Your task to perform on an android device: Go to Android settings Image 0: 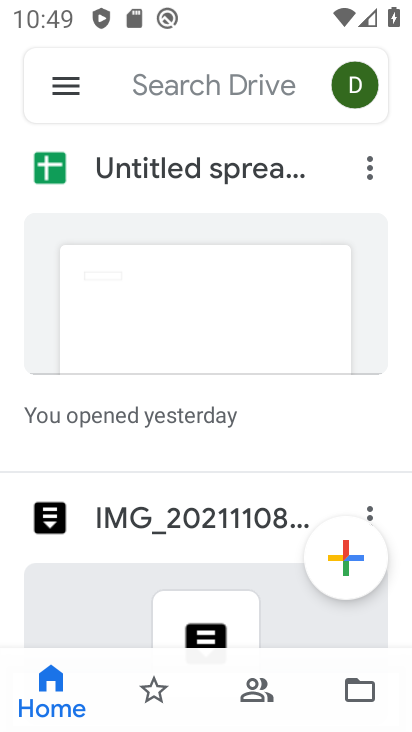
Step 0: press home button
Your task to perform on an android device: Go to Android settings Image 1: 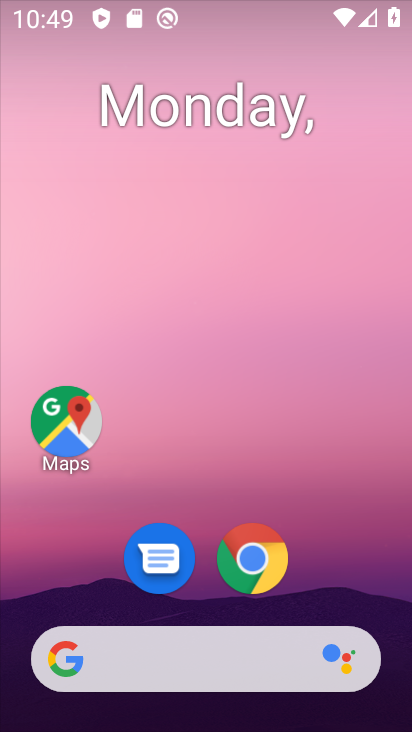
Step 1: drag from (322, 525) to (357, 36)
Your task to perform on an android device: Go to Android settings Image 2: 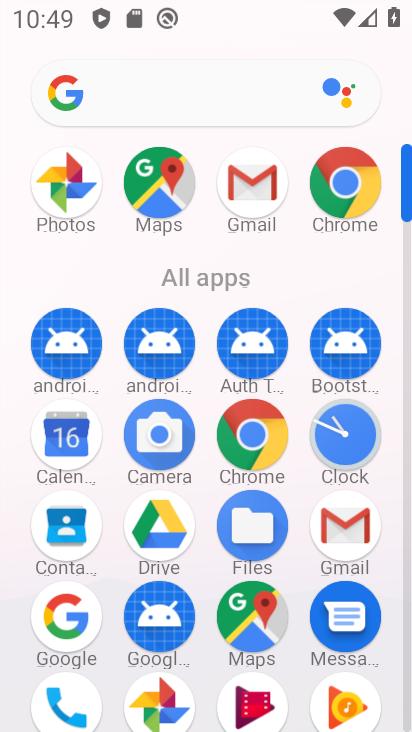
Step 2: drag from (203, 509) to (243, 75)
Your task to perform on an android device: Go to Android settings Image 3: 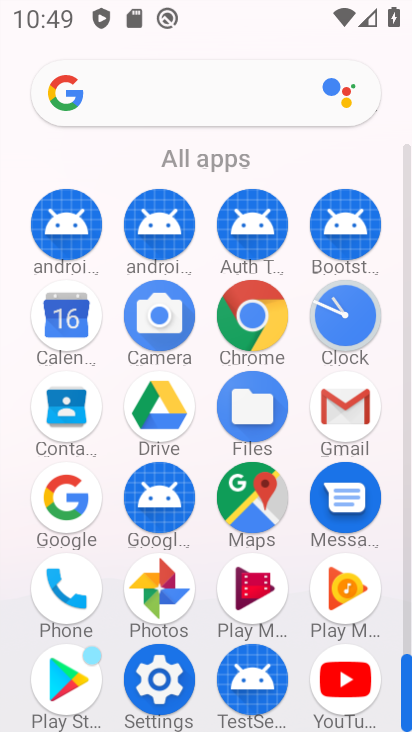
Step 3: click (164, 692)
Your task to perform on an android device: Go to Android settings Image 4: 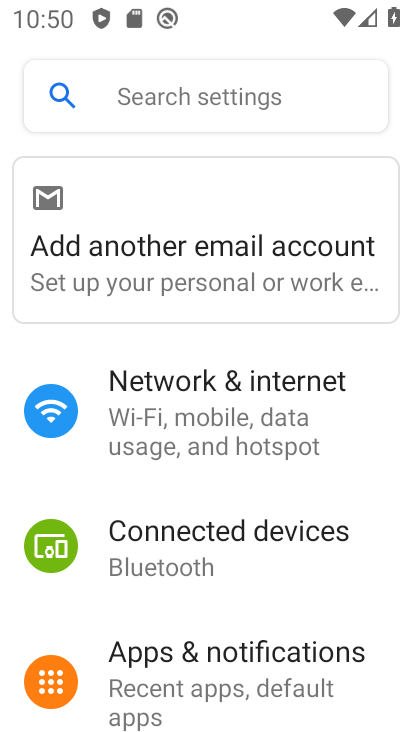
Step 4: task complete